Your task to perform on an android device: Go to ESPN.com Image 0: 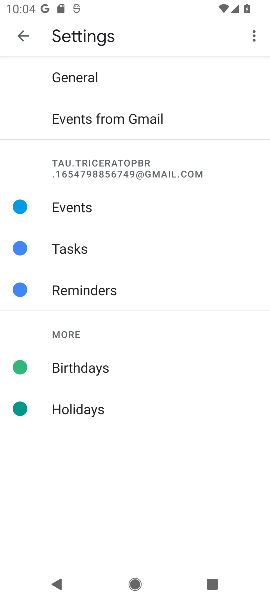
Step 0: press back button
Your task to perform on an android device: Go to ESPN.com Image 1: 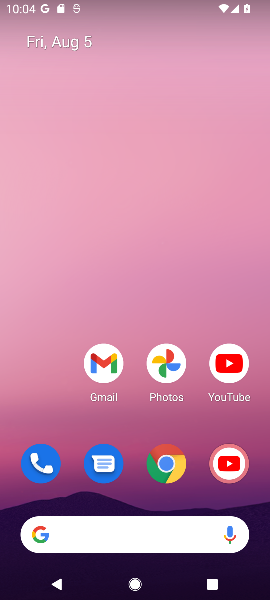
Step 1: drag from (169, 570) to (97, 76)
Your task to perform on an android device: Go to ESPN.com Image 2: 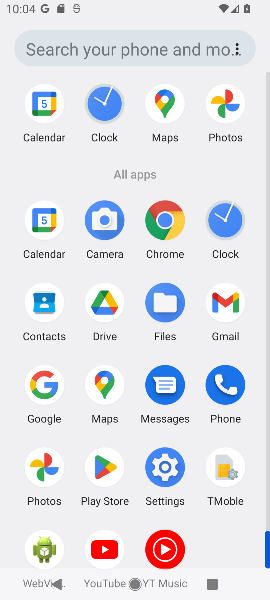
Step 2: drag from (131, 401) to (107, 127)
Your task to perform on an android device: Go to ESPN.com Image 3: 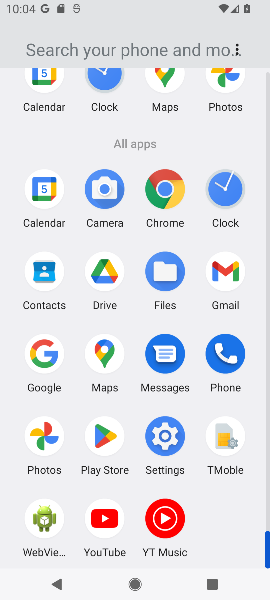
Step 3: drag from (122, 321) to (91, 49)
Your task to perform on an android device: Go to ESPN.com Image 4: 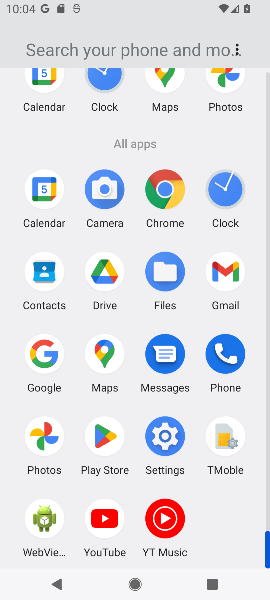
Step 4: drag from (157, 120) to (151, 73)
Your task to perform on an android device: Go to ESPN.com Image 5: 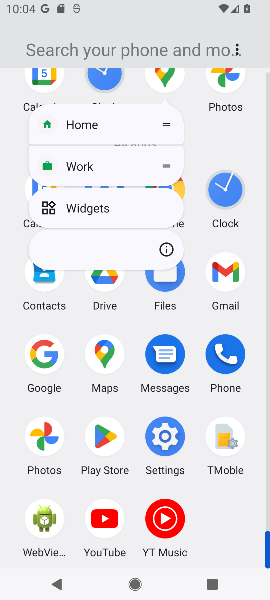
Step 5: click (185, 138)
Your task to perform on an android device: Go to ESPN.com Image 6: 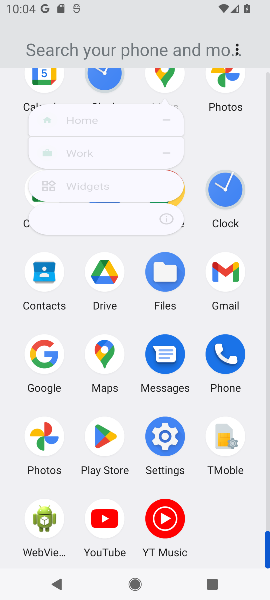
Step 6: click (205, 160)
Your task to perform on an android device: Go to ESPN.com Image 7: 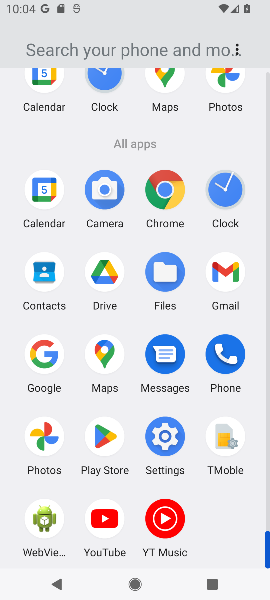
Step 7: click (208, 145)
Your task to perform on an android device: Go to ESPN.com Image 8: 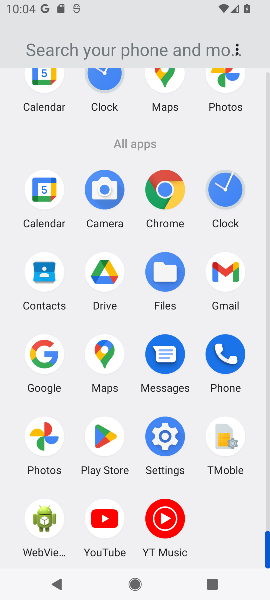
Step 8: click (181, 185)
Your task to perform on an android device: Go to ESPN.com Image 9: 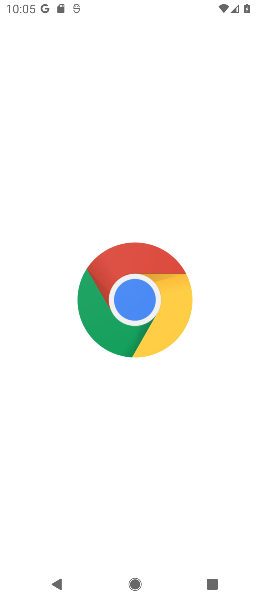
Step 9: click (181, 185)
Your task to perform on an android device: Go to ESPN.com Image 10: 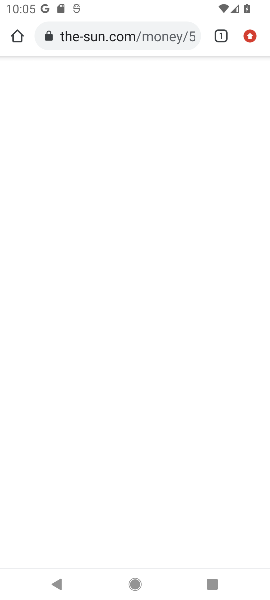
Step 10: click (195, 130)
Your task to perform on an android device: Go to ESPN.com Image 11: 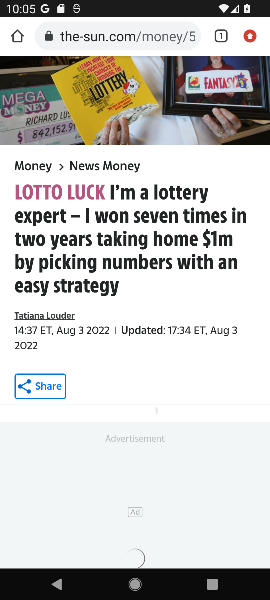
Step 11: click (195, 133)
Your task to perform on an android device: Go to ESPN.com Image 12: 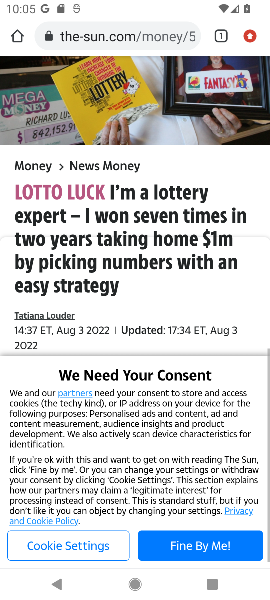
Step 12: click (248, 34)
Your task to perform on an android device: Go to ESPN.com Image 13: 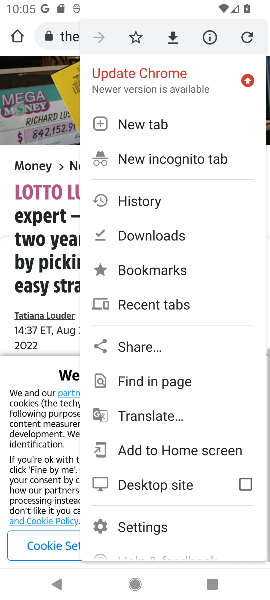
Step 13: click (149, 121)
Your task to perform on an android device: Go to ESPN.com Image 14: 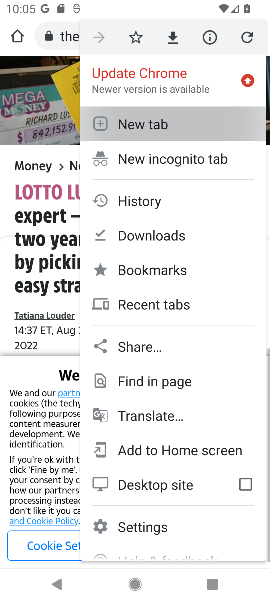
Step 14: click (149, 122)
Your task to perform on an android device: Go to ESPN.com Image 15: 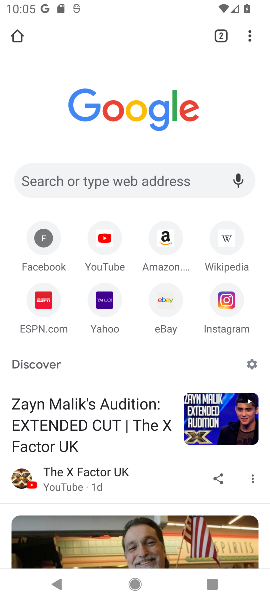
Step 15: click (49, 302)
Your task to perform on an android device: Go to ESPN.com Image 16: 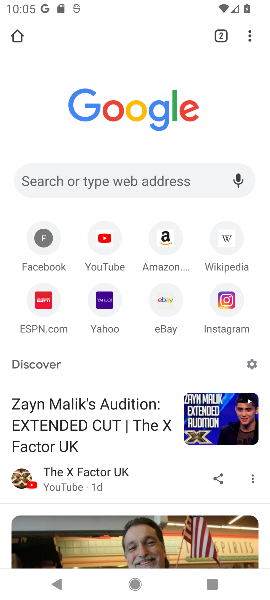
Step 16: click (47, 304)
Your task to perform on an android device: Go to ESPN.com Image 17: 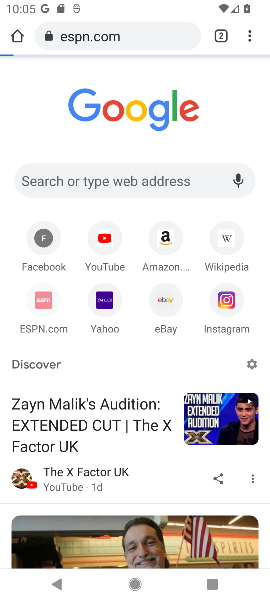
Step 17: click (42, 304)
Your task to perform on an android device: Go to ESPN.com Image 18: 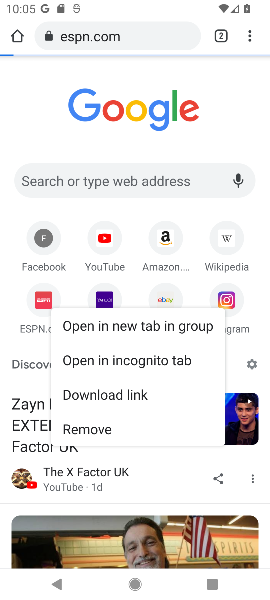
Step 18: click (41, 304)
Your task to perform on an android device: Go to ESPN.com Image 19: 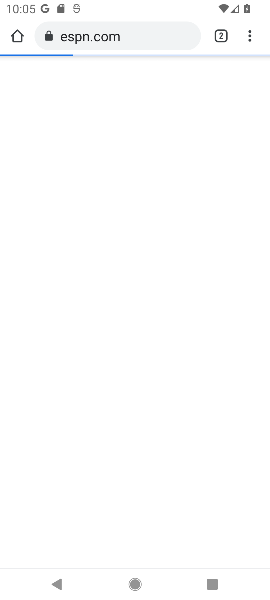
Step 19: click (41, 304)
Your task to perform on an android device: Go to ESPN.com Image 20: 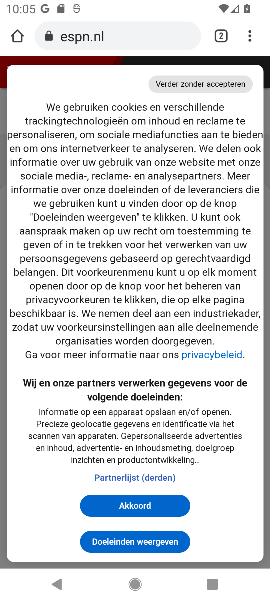
Step 20: task complete